Your task to perform on an android device: find photos in the google photos app Image 0: 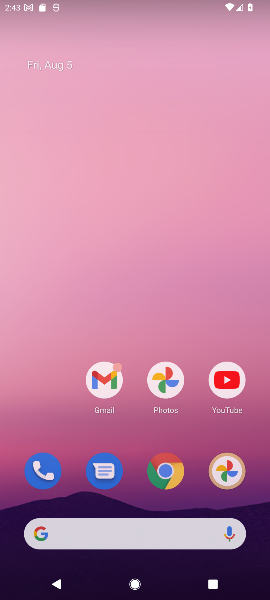
Step 0: press home button
Your task to perform on an android device: find photos in the google photos app Image 1: 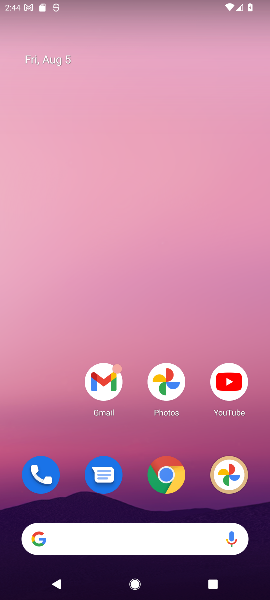
Step 1: drag from (243, 580) to (64, 198)
Your task to perform on an android device: find photos in the google photos app Image 2: 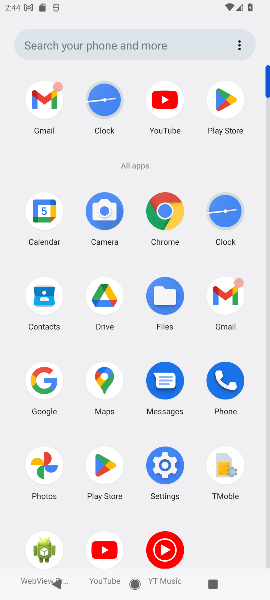
Step 2: click (40, 465)
Your task to perform on an android device: find photos in the google photos app Image 3: 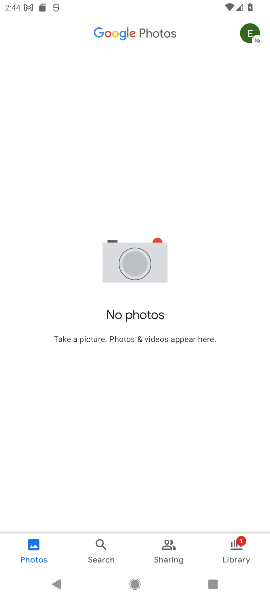
Step 3: click (24, 554)
Your task to perform on an android device: find photos in the google photos app Image 4: 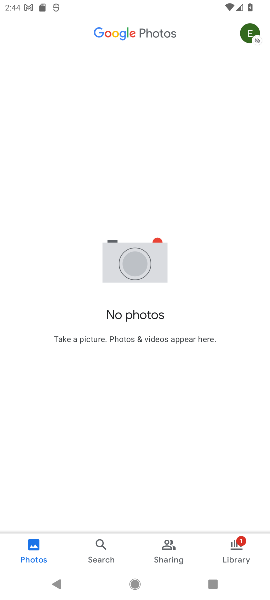
Step 4: task complete